Your task to perform on an android device: manage bookmarks in the chrome app Image 0: 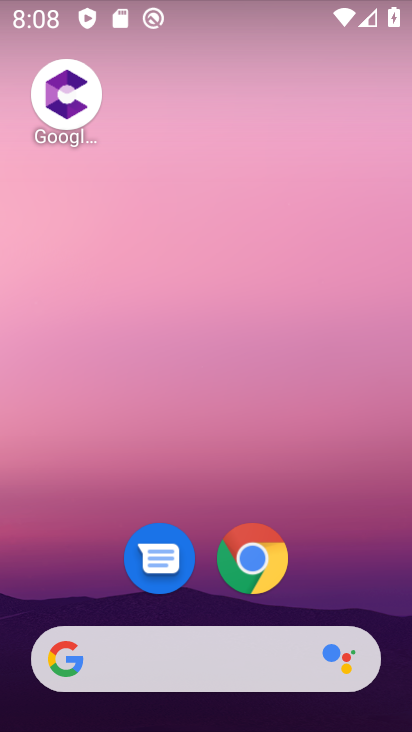
Step 0: click (235, 550)
Your task to perform on an android device: manage bookmarks in the chrome app Image 1: 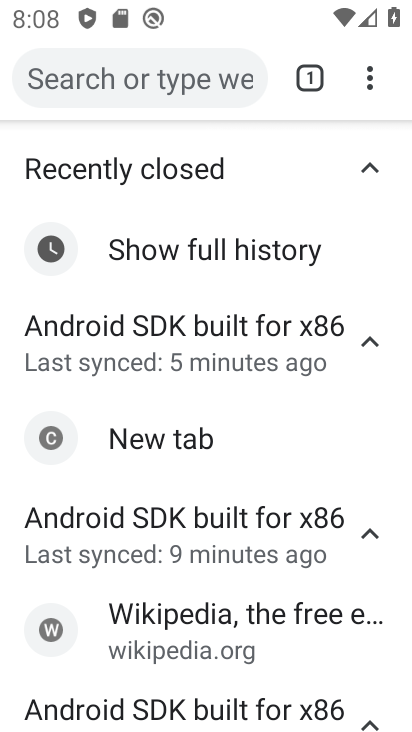
Step 1: drag from (372, 86) to (186, 287)
Your task to perform on an android device: manage bookmarks in the chrome app Image 2: 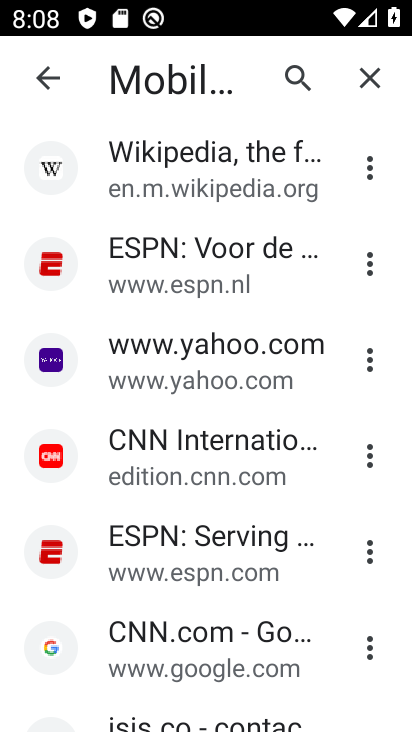
Step 2: drag from (291, 461) to (336, 270)
Your task to perform on an android device: manage bookmarks in the chrome app Image 3: 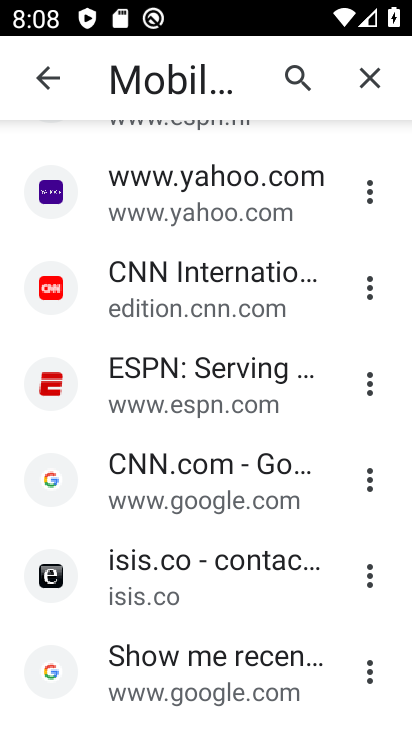
Step 3: click (377, 574)
Your task to perform on an android device: manage bookmarks in the chrome app Image 4: 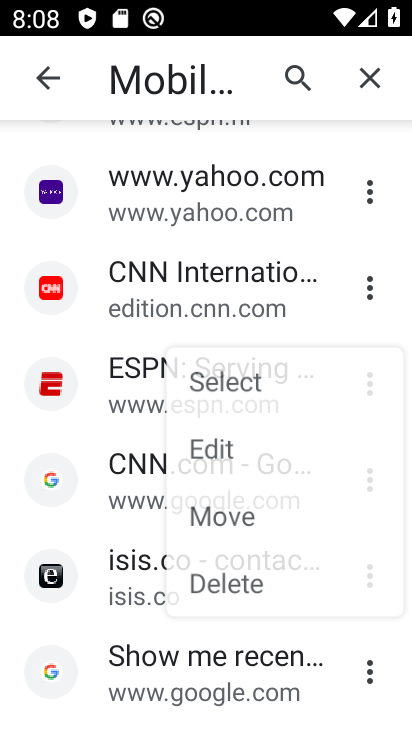
Step 4: click (377, 574)
Your task to perform on an android device: manage bookmarks in the chrome app Image 5: 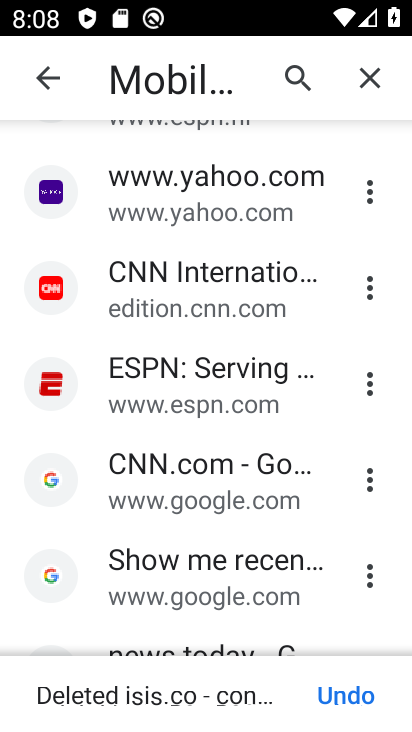
Step 5: click (377, 574)
Your task to perform on an android device: manage bookmarks in the chrome app Image 6: 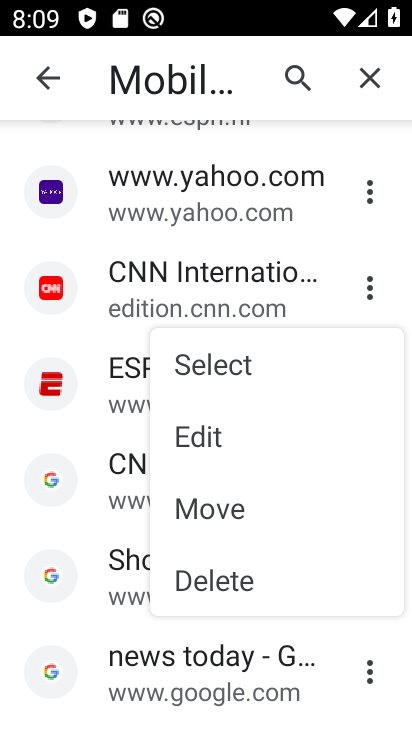
Step 6: click (237, 564)
Your task to perform on an android device: manage bookmarks in the chrome app Image 7: 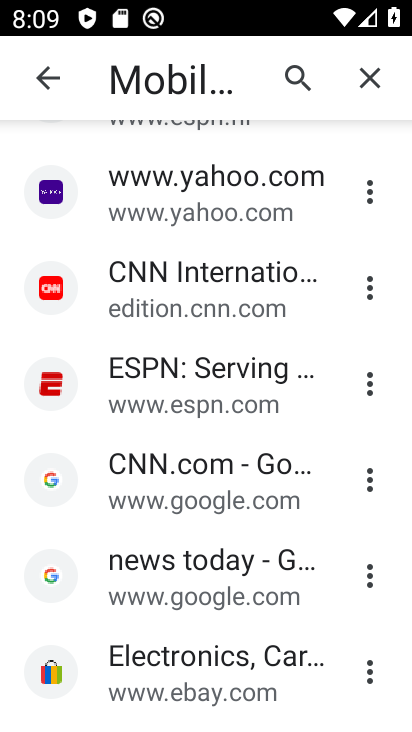
Step 7: task complete